Your task to perform on an android device: Open calendar and show me the second week of next month Image 0: 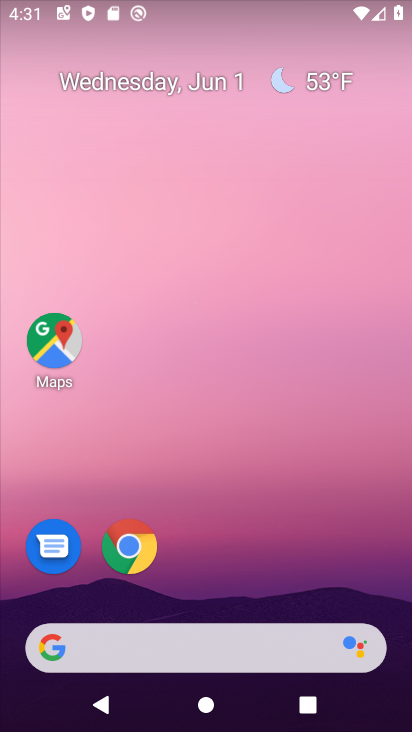
Step 0: drag from (223, 483) to (149, 142)
Your task to perform on an android device: Open calendar and show me the second week of next month Image 1: 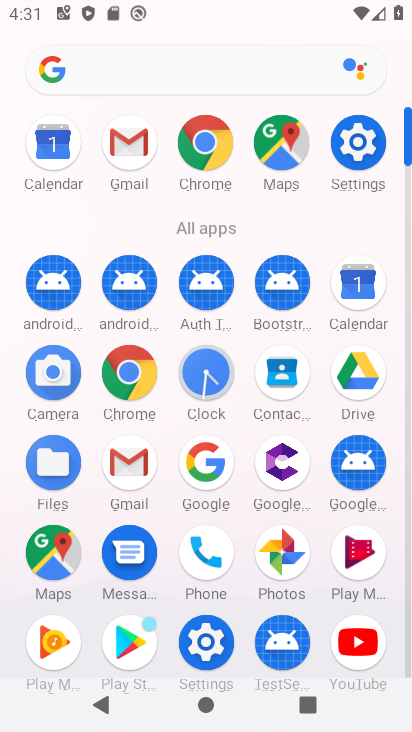
Step 1: click (353, 287)
Your task to perform on an android device: Open calendar and show me the second week of next month Image 2: 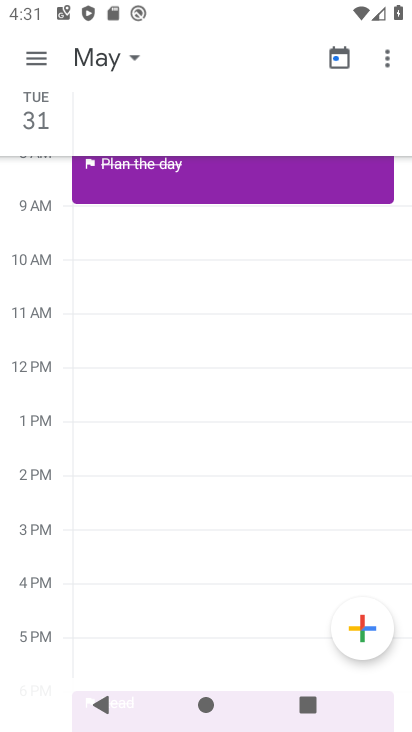
Step 2: click (37, 64)
Your task to perform on an android device: Open calendar and show me the second week of next month Image 3: 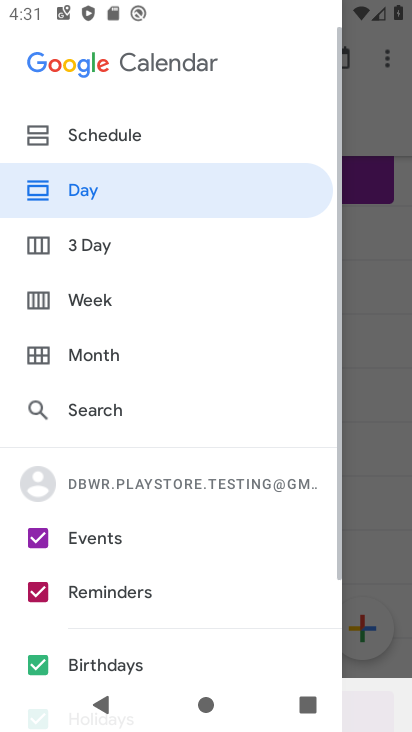
Step 3: click (99, 299)
Your task to perform on an android device: Open calendar and show me the second week of next month Image 4: 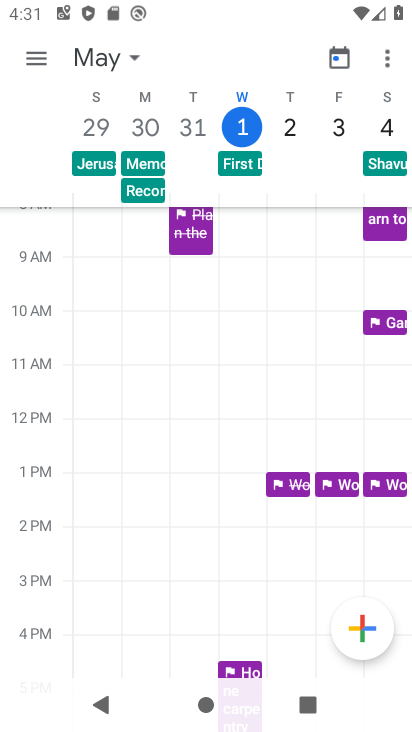
Step 4: click (130, 59)
Your task to perform on an android device: Open calendar and show me the second week of next month Image 5: 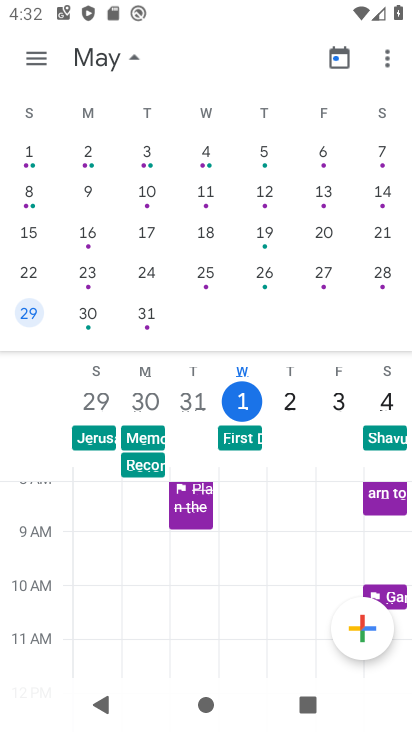
Step 5: drag from (345, 226) to (70, 224)
Your task to perform on an android device: Open calendar and show me the second week of next month Image 6: 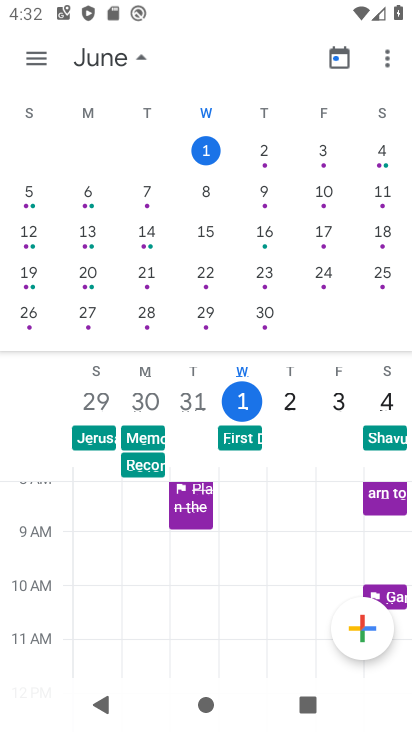
Step 6: click (209, 190)
Your task to perform on an android device: Open calendar and show me the second week of next month Image 7: 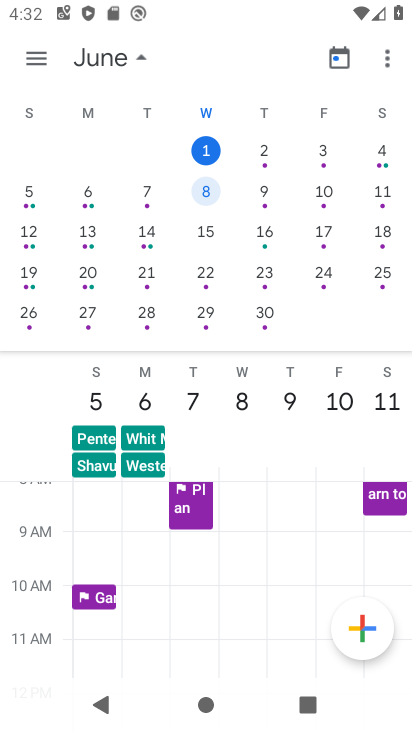
Step 7: task complete